Your task to perform on an android device: change timer sound Image 0: 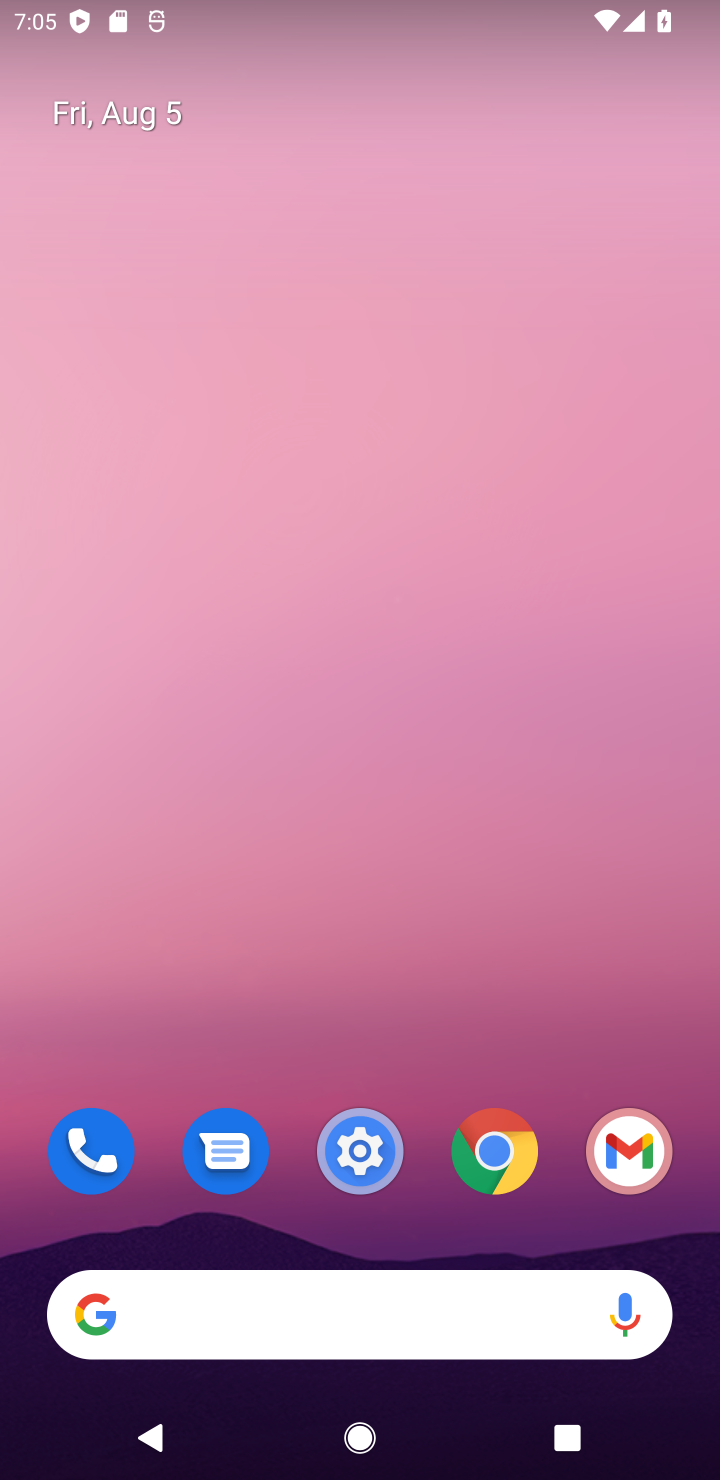
Step 0: click (375, 1179)
Your task to perform on an android device: change timer sound Image 1: 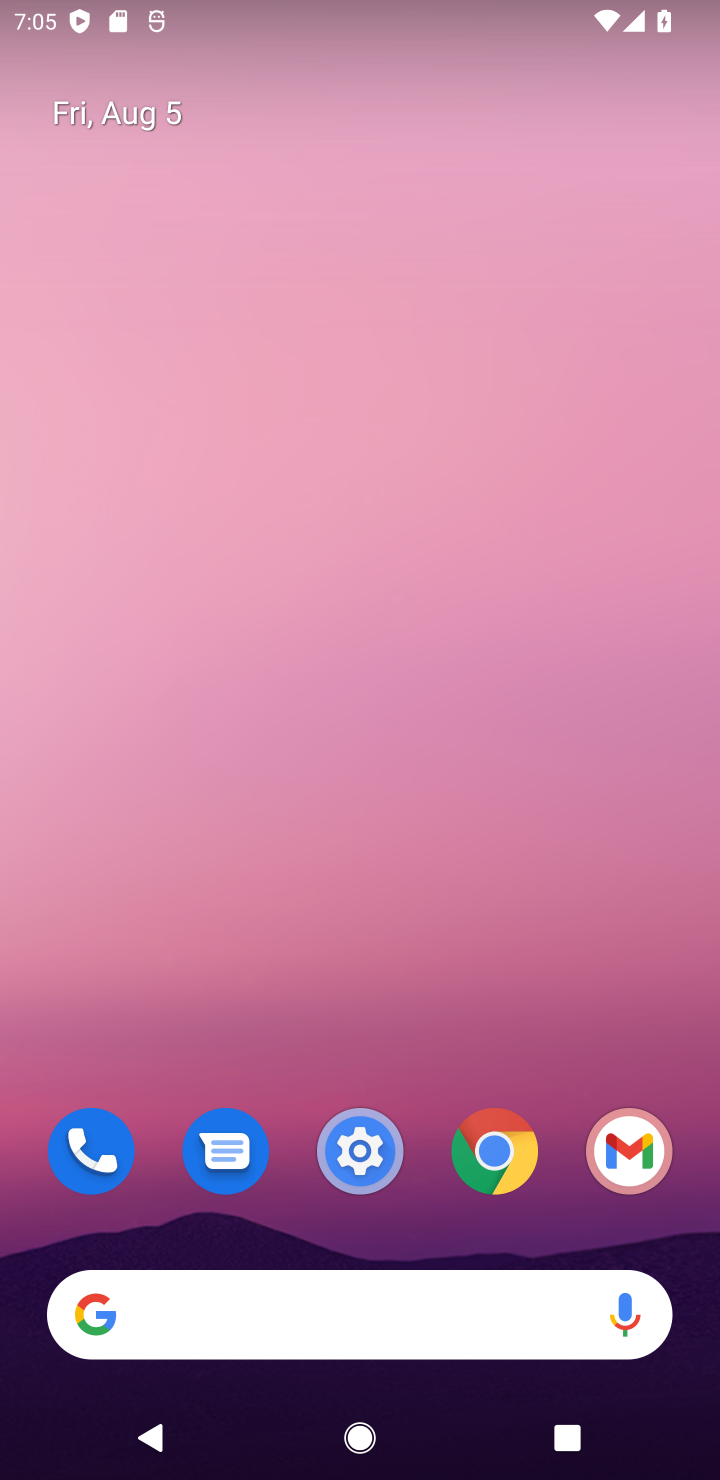
Step 1: click (359, 1147)
Your task to perform on an android device: change timer sound Image 2: 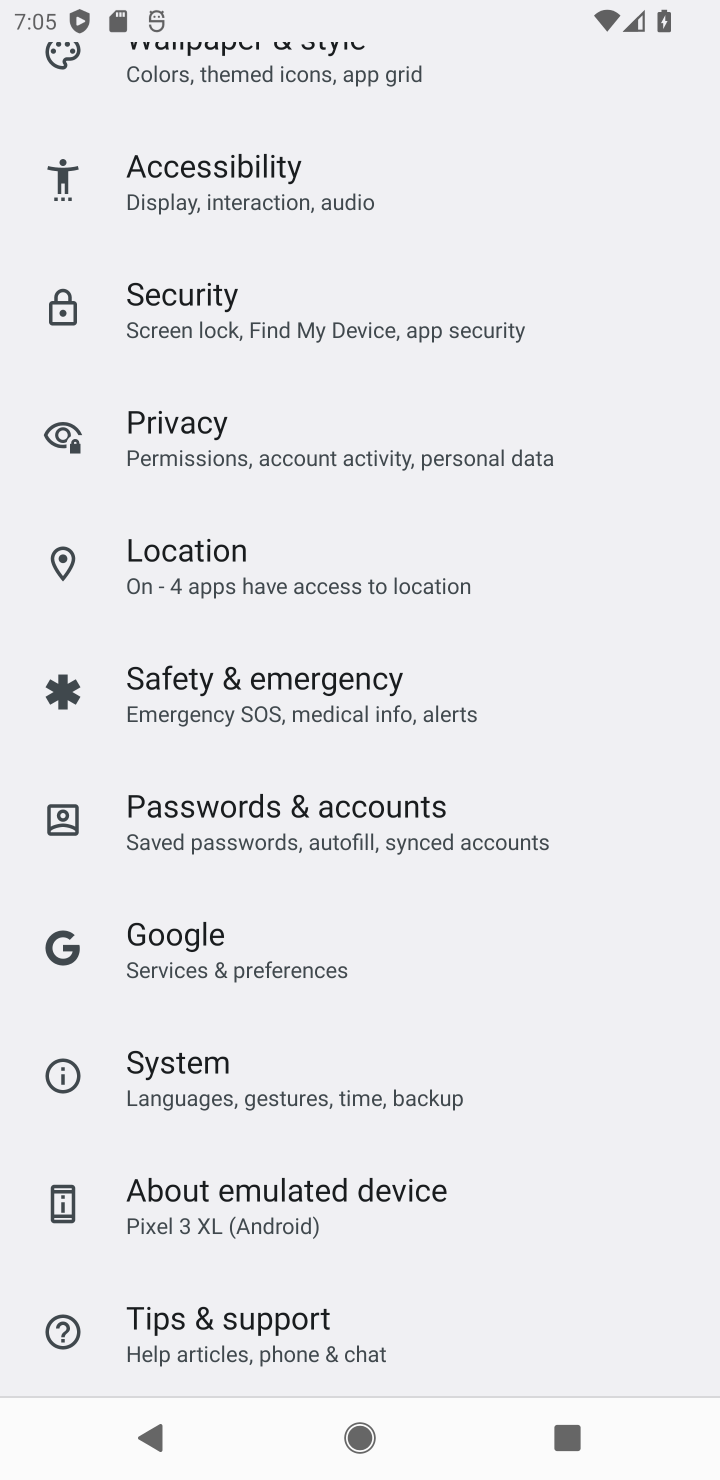
Step 2: press home button
Your task to perform on an android device: change timer sound Image 3: 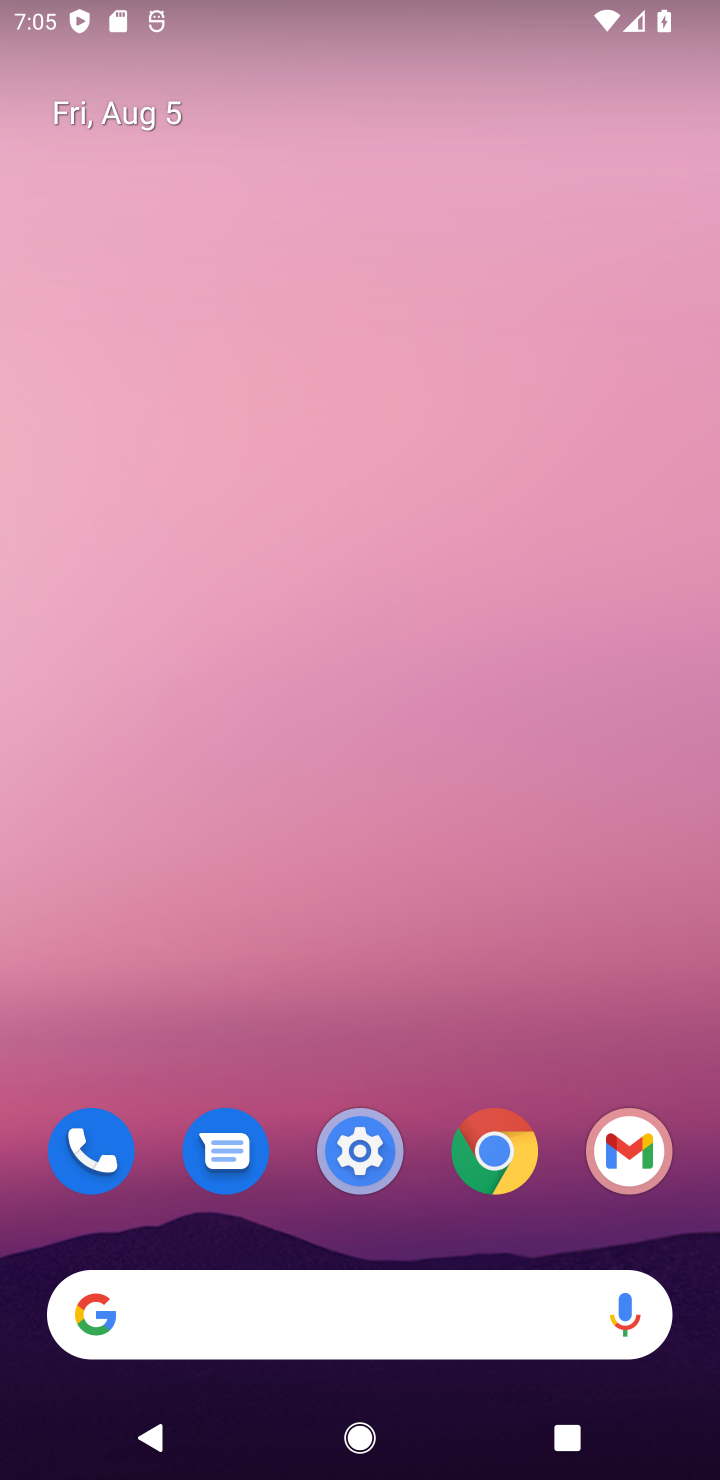
Step 3: drag from (349, 1019) to (257, 254)
Your task to perform on an android device: change timer sound Image 4: 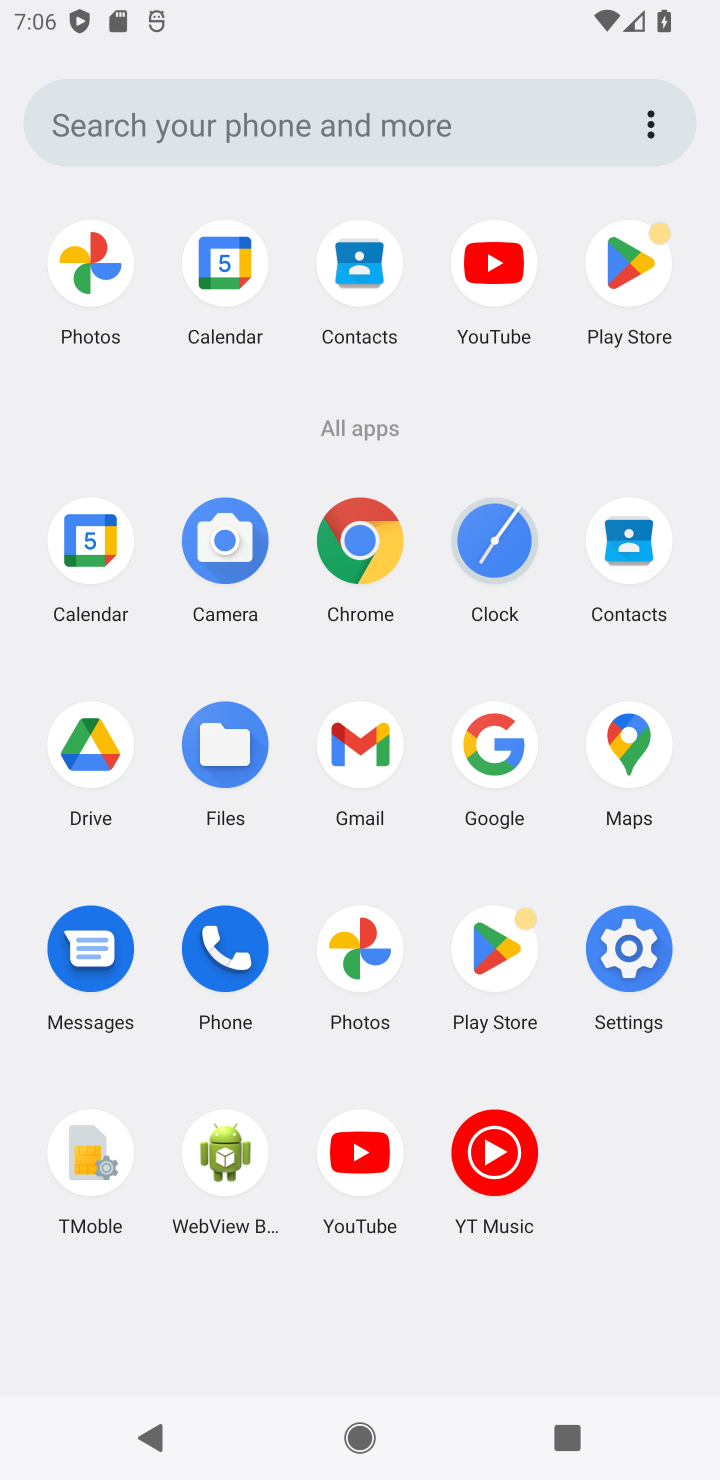
Step 4: click (486, 568)
Your task to perform on an android device: change timer sound Image 5: 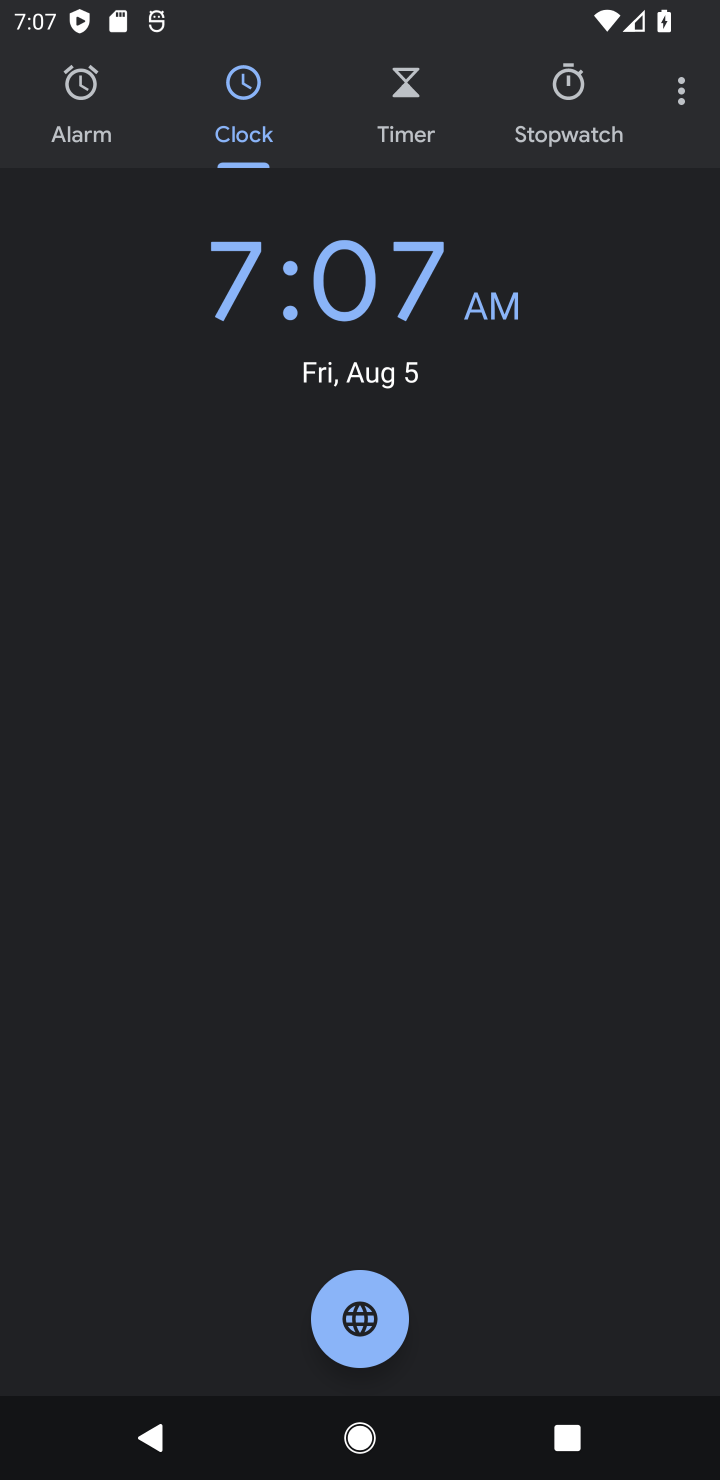
Step 5: click (691, 98)
Your task to perform on an android device: change timer sound Image 6: 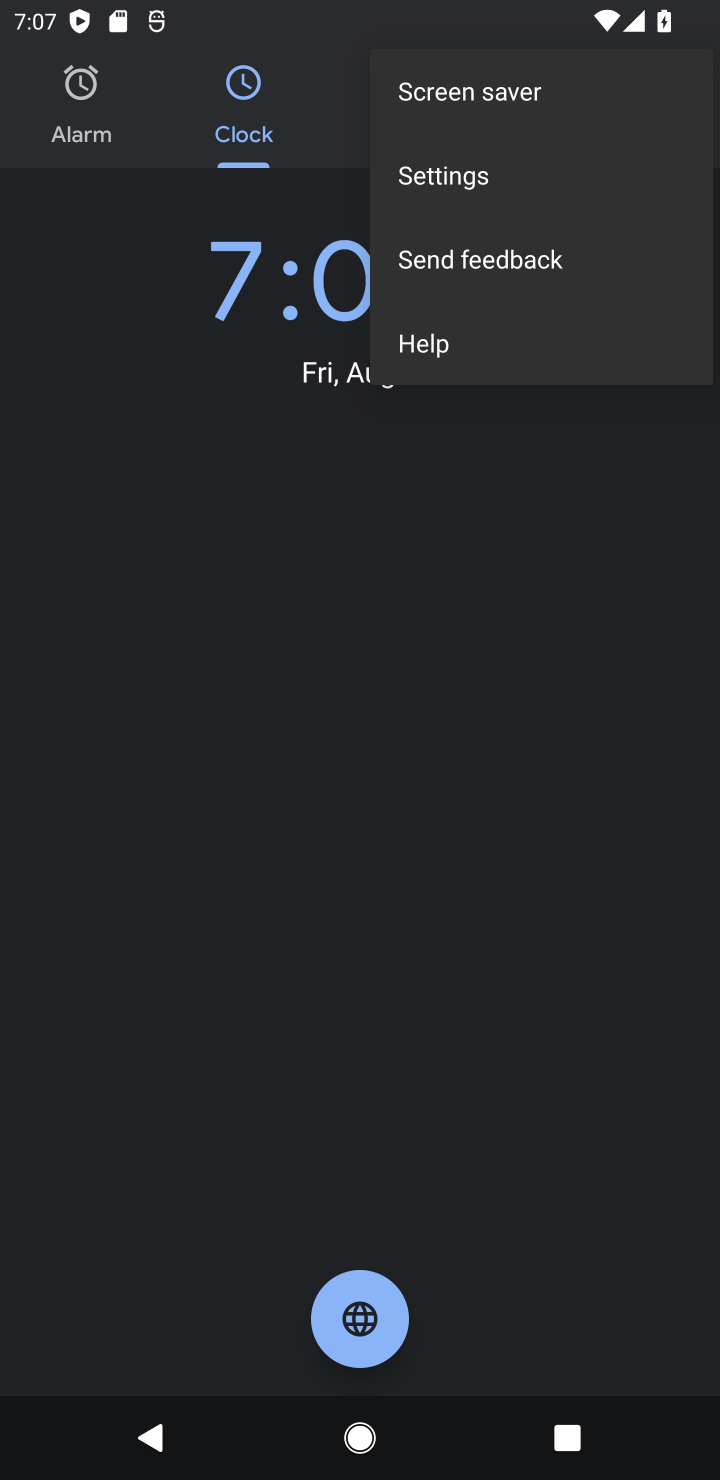
Step 6: click (419, 195)
Your task to perform on an android device: change timer sound Image 7: 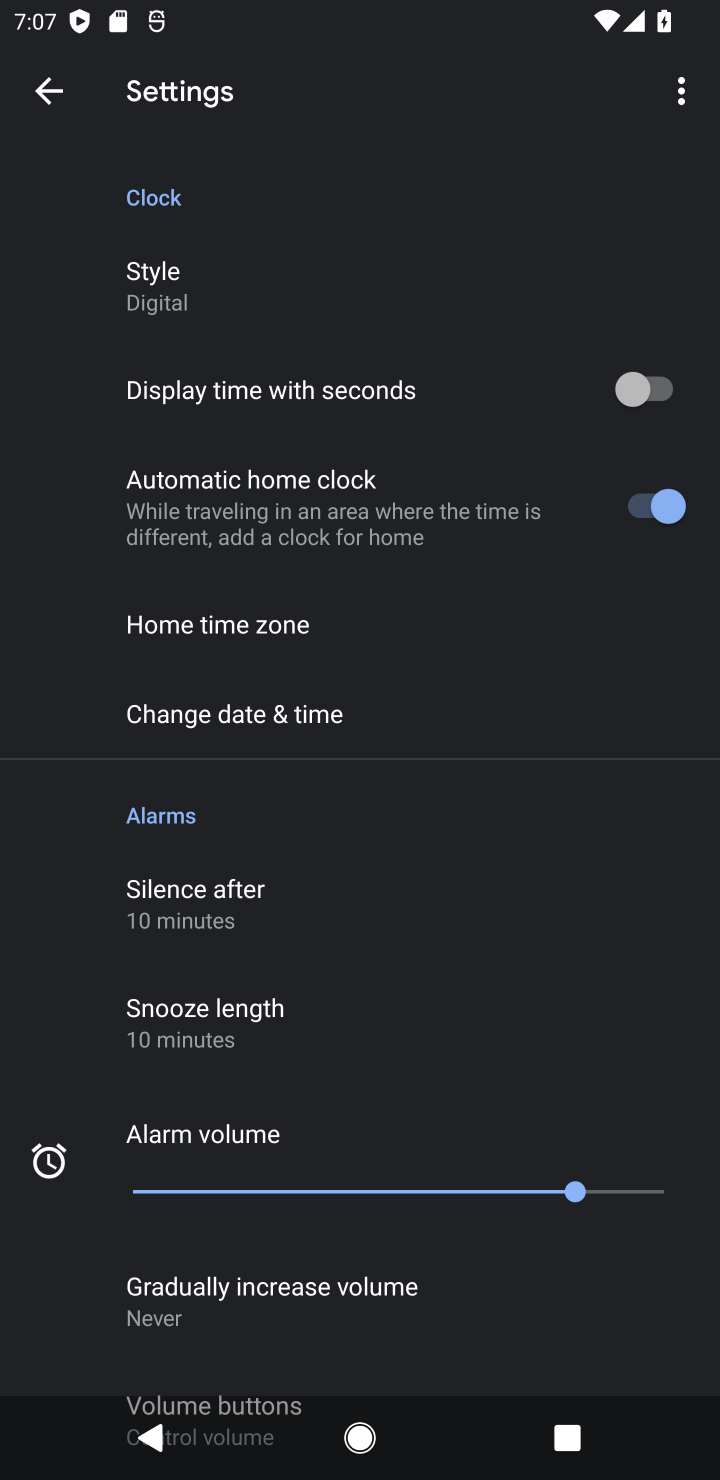
Step 7: drag from (457, 996) to (347, 454)
Your task to perform on an android device: change timer sound Image 8: 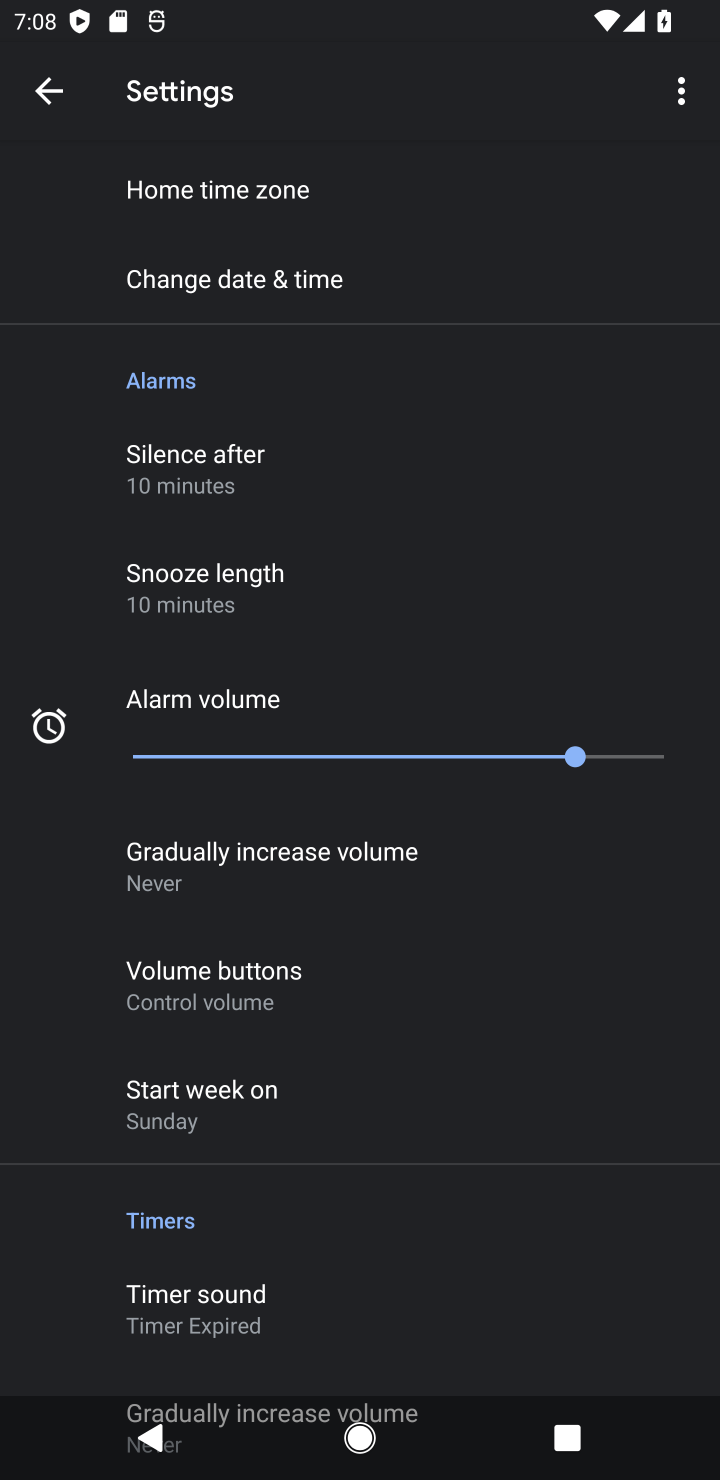
Step 8: click (289, 1292)
Your task to perform on an android device: change timer sound Image 9: 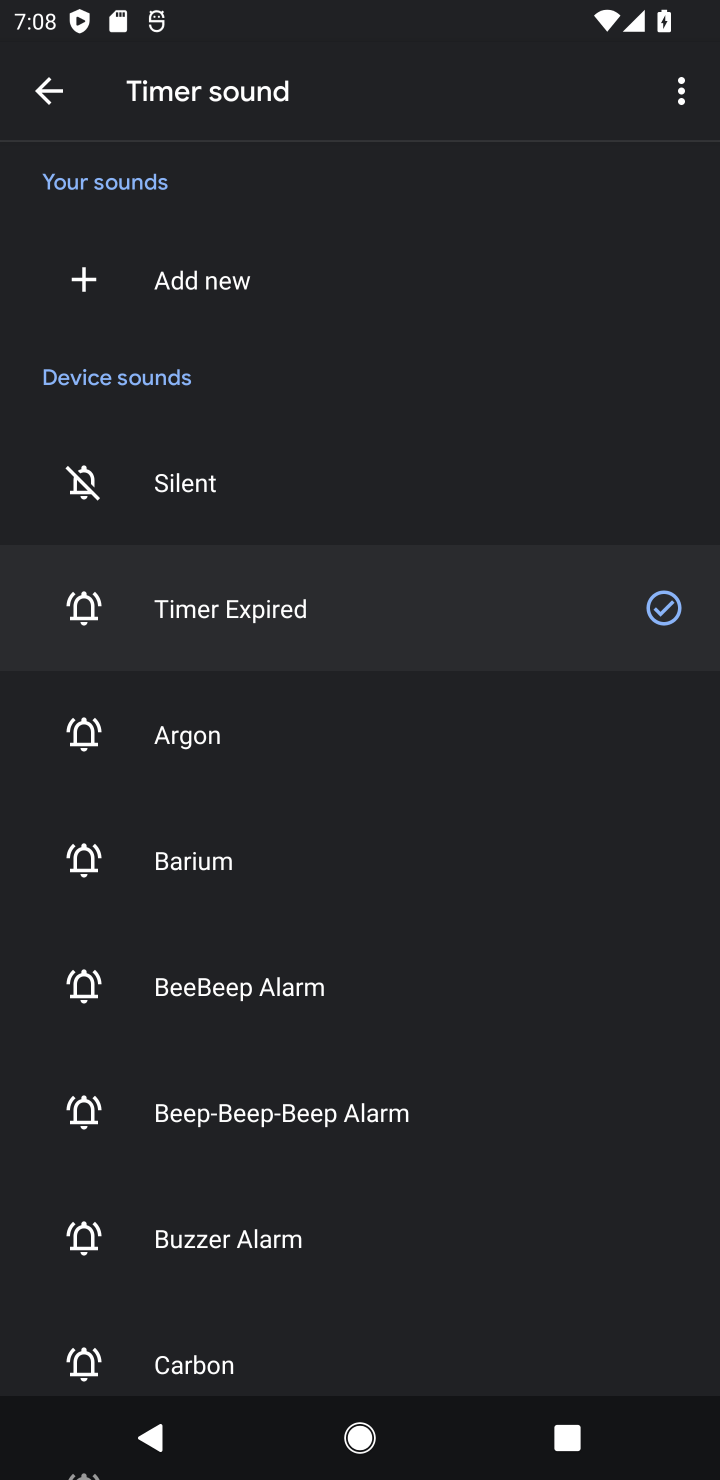
Step 9: click (182, 859)
Your task to perform on an android device: change timer sound Image 10: 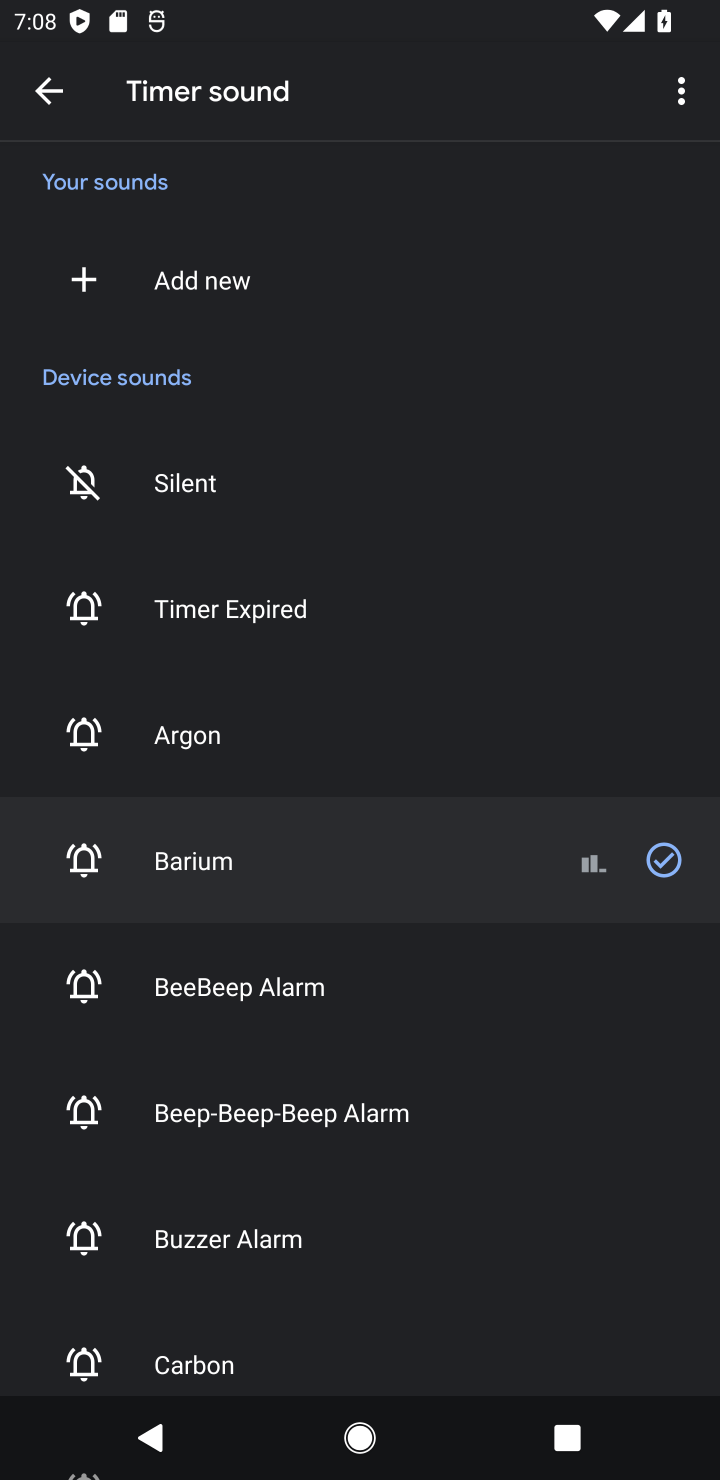
Step 10: task complete